Your task to perform on an android device: Open Google Chrome Image 0: 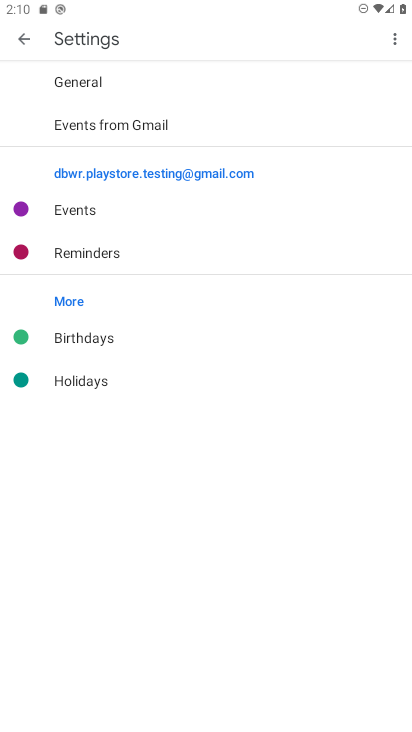
Step 0: press home button
Your task to perform on an android device: Open Google Chrome Image 1: 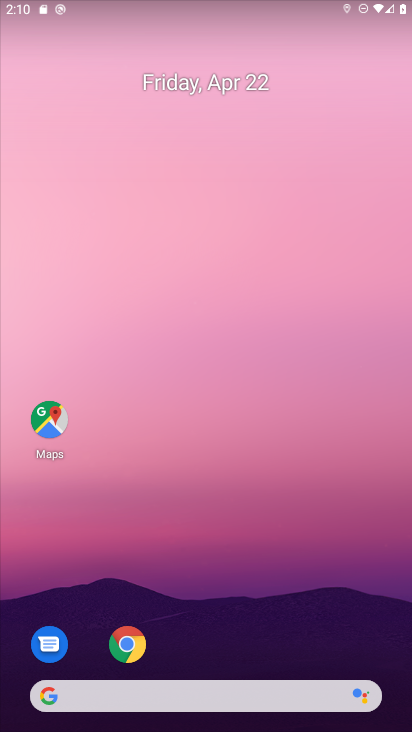
Step 1: drag from (281, 604) to (276, 80)
Your task to perform on an android device: Open Google Chrome Image 2: 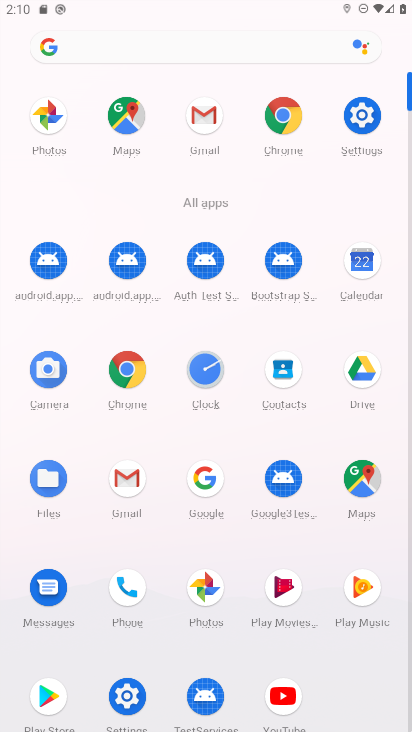
Step 2: click (129, 369)
Your task to perform on an android device: Open Google Chrome Image 3: 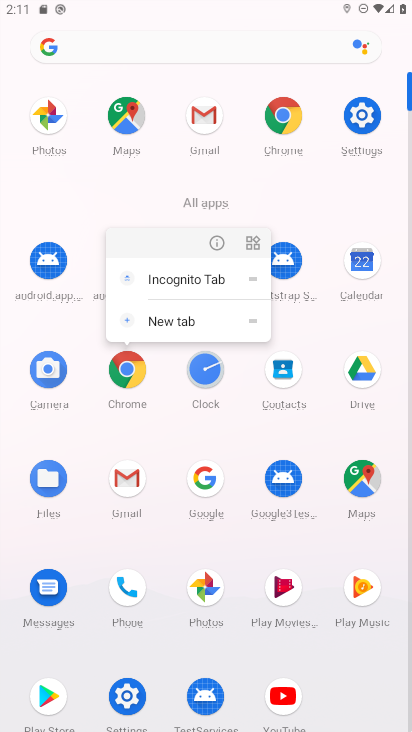
Step 3: click (126, 364)
Your task to perform on an android device: Open Google Chrome Image 4: 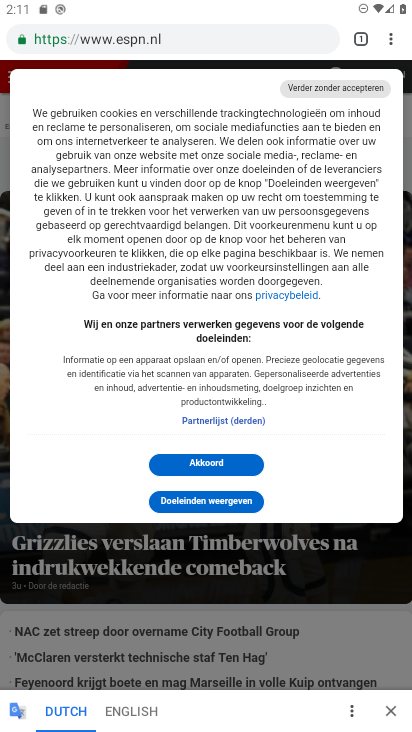
Step 4: task complete